Your task to perform on an android device: toggle translation in the chrome app Image 0: 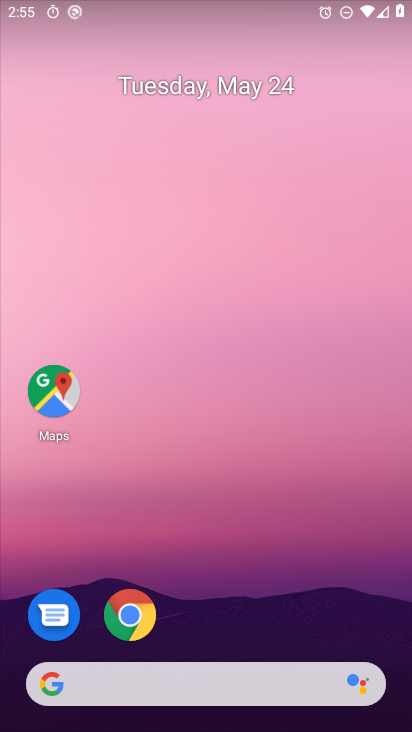
Step 0: click (124, 614)
Your task to perform on an android device: toggle translation in the chrome app Image 1: 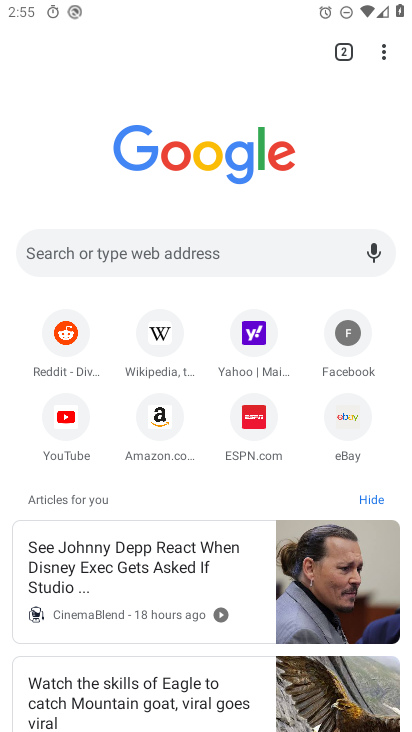
Step 1: click (382, 45)
Your task to perform on an android device: toggle translation in the chrome app Image 2: 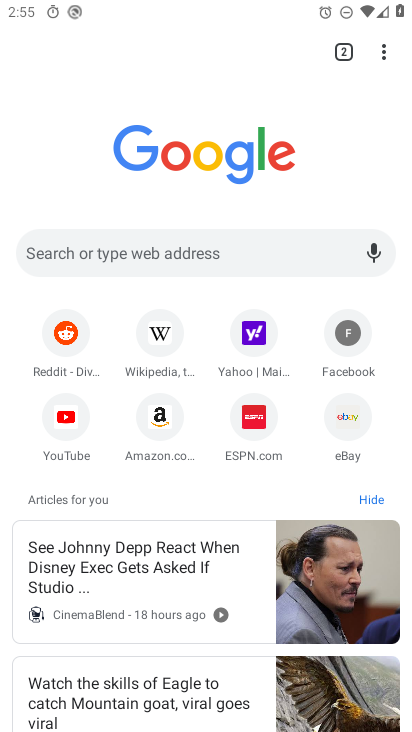
Step 2: click (379, 55)
Your task to perform on an android device: toggle translation in the chrome app Image 3: 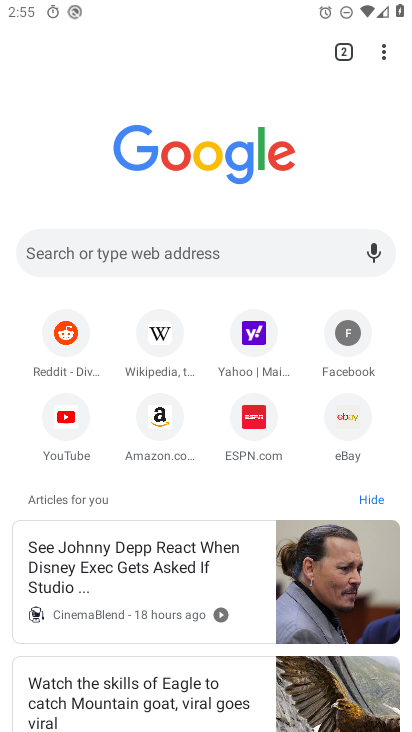
Step 3: click (388, 57)
Your task to perform on an android device: toggle translation in the chrome app Image 4: 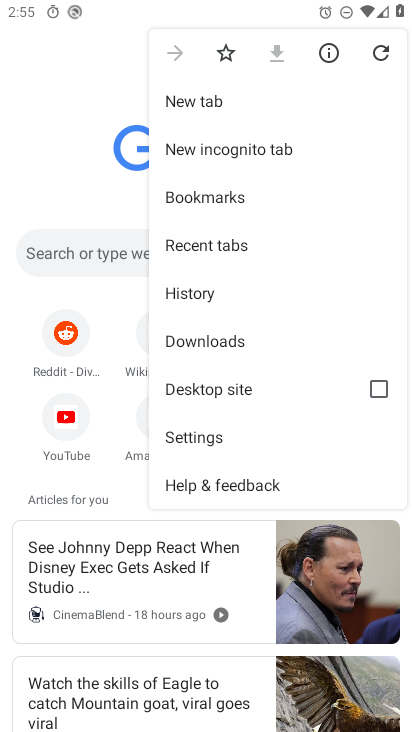
Step 4: click (197, 441)
Your task to perform on an android device: toggle translation in the chrome app Image 5: 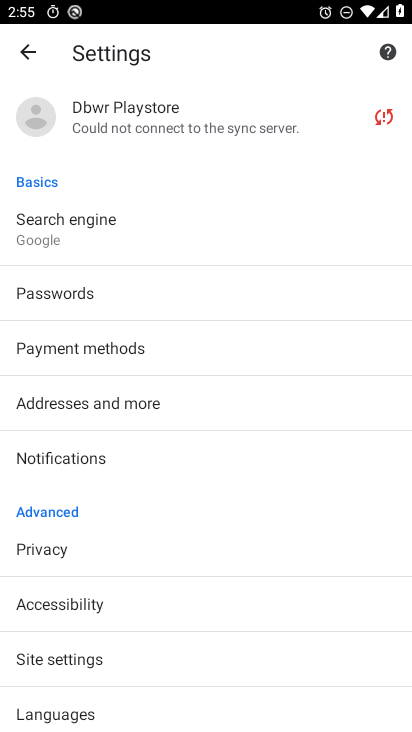
Step 5: click (66, 716)
Your task to perform on an android device: toggle translation in the chrome app Image 6: 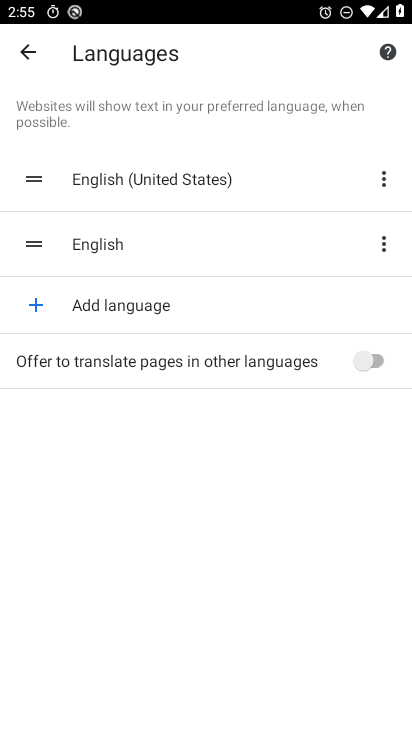
Step 6: click (375, 367)
Your task to perform on an android device: toggle translation in the chrome app Image 7: 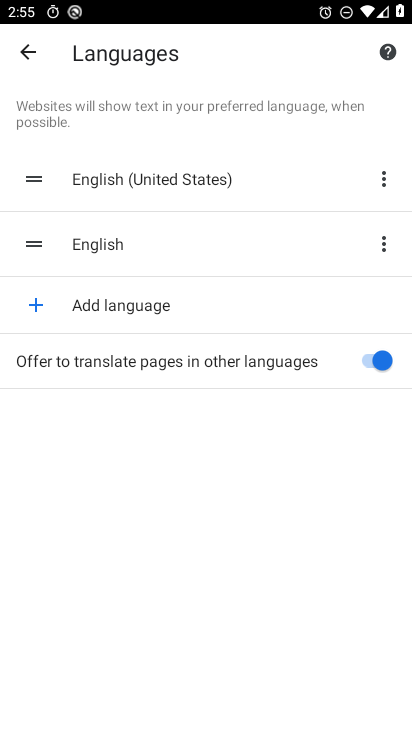
Step 7: task complete